Your task to perform on an android device: Open ESPN.com Image 0: 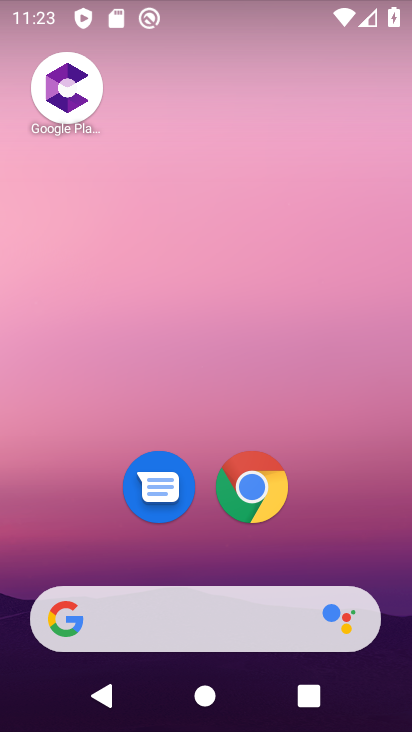
Step 0: drag from (318, 302) to (246, 46)
Your task to perform on an android device: Open ESPN.com Image 1: 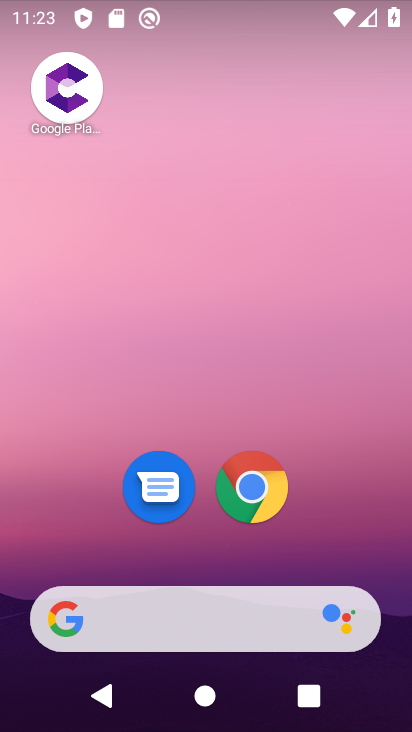
Step 1: drag from (344, 531) to (226, 9)
Your task to perform on an android device: Open ESPN.com Image 2: 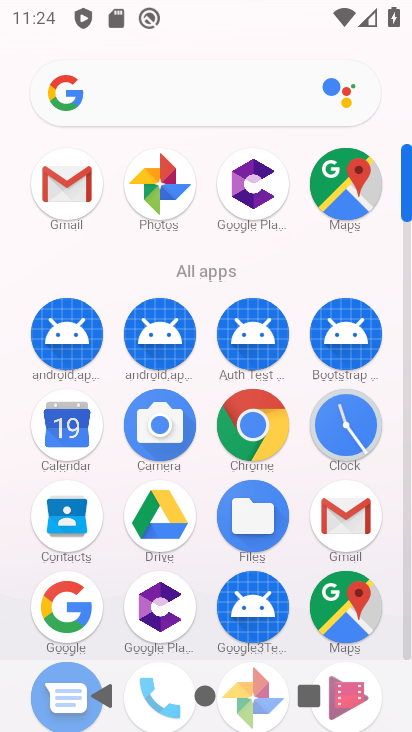
Step 2: click (256, 428)
Your task to perform on an android device: Open ESPN.com Image 3: 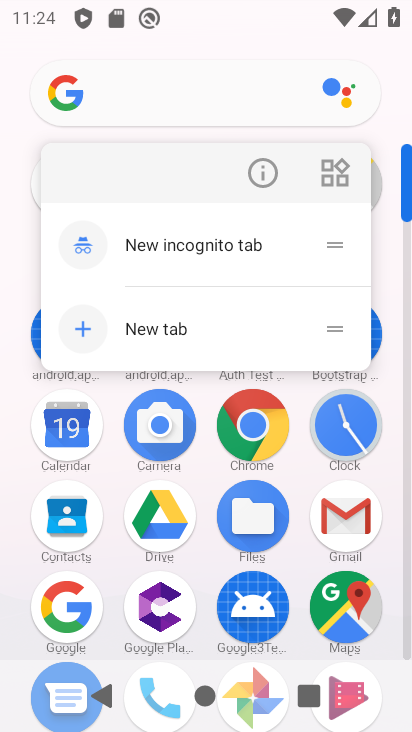
Step 3: click (256, 430)
Your task to perform on an android device: Open ESPN.com Image 4: 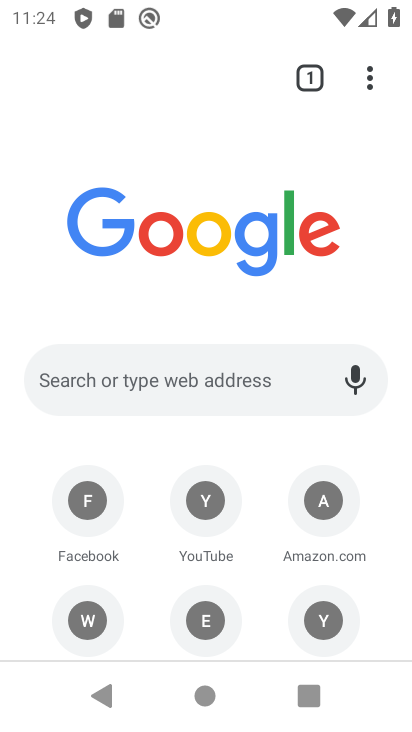
Step 4: click (210, 371)
Your task to perform on an android device: Open ESPN.com Image 5: 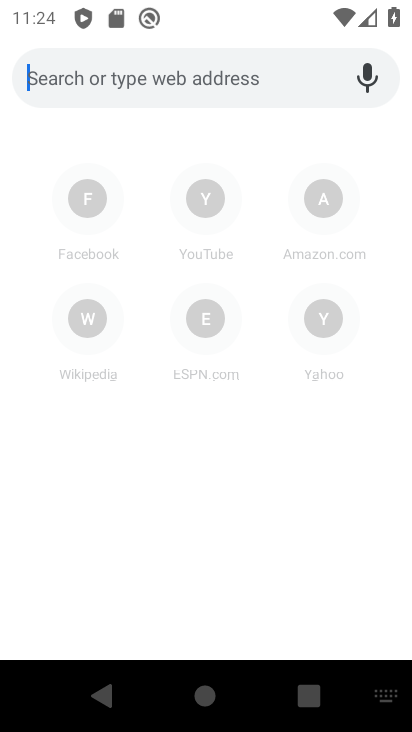
Step 5: press back button
Your task to perform on an android device: Open ESPN.com Image 6: 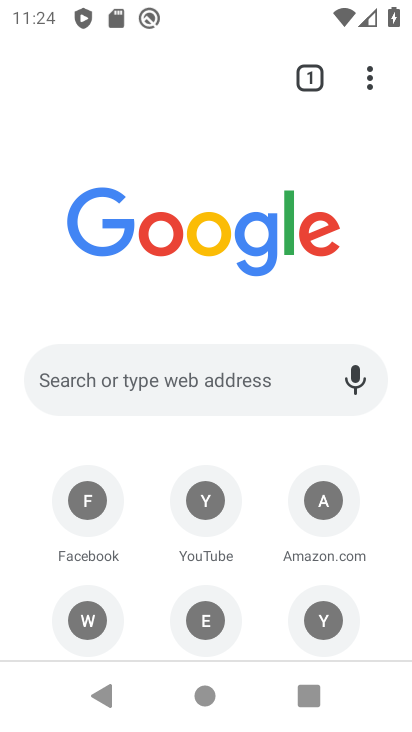
Step 6: click (194, 619)
Your task to perform on an android device: Open ESPN.com Image 7: 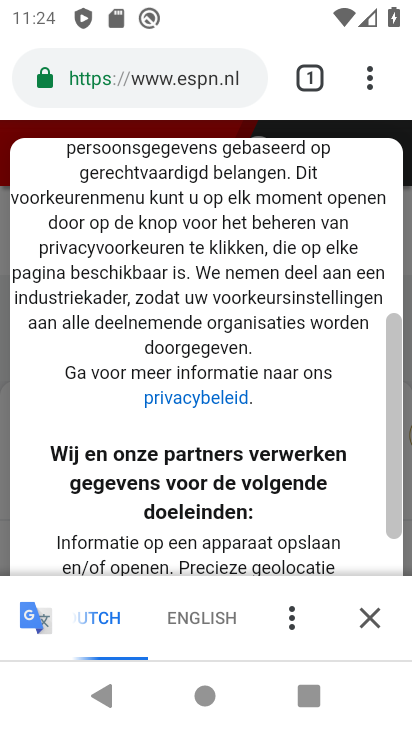
Step 7: task complete